Your task to perform on an android device: add a contact in the contacts app Image 0: 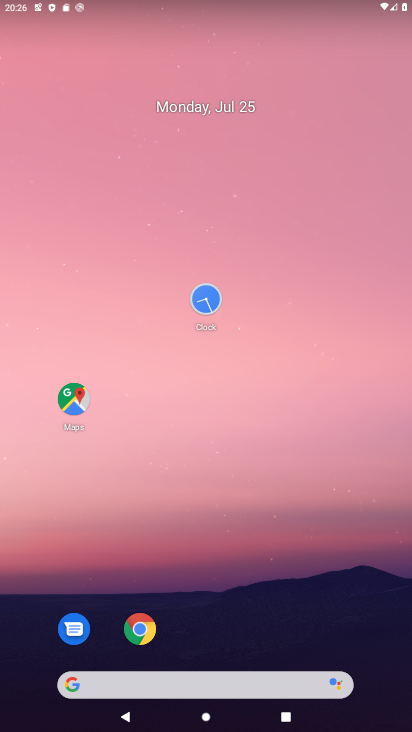
Step 0: drag from (212, 620) to (80, 6)
Your task to perform on an android device: add a contact in the contacts app Image 1: 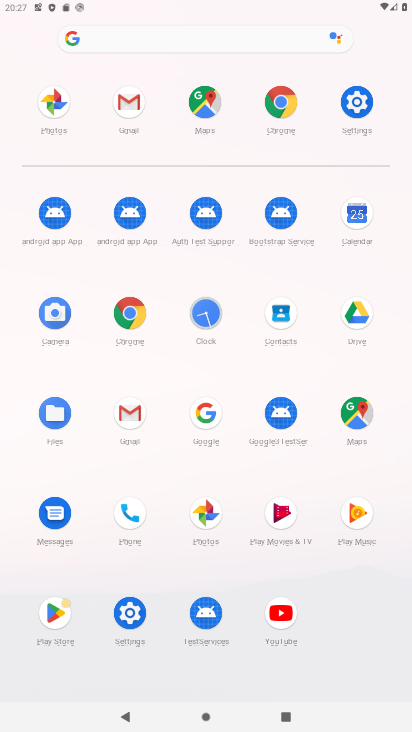
Step 1: click (284, 315)
Your task to perform on an android device: add a contact in the contacts app Image 2: 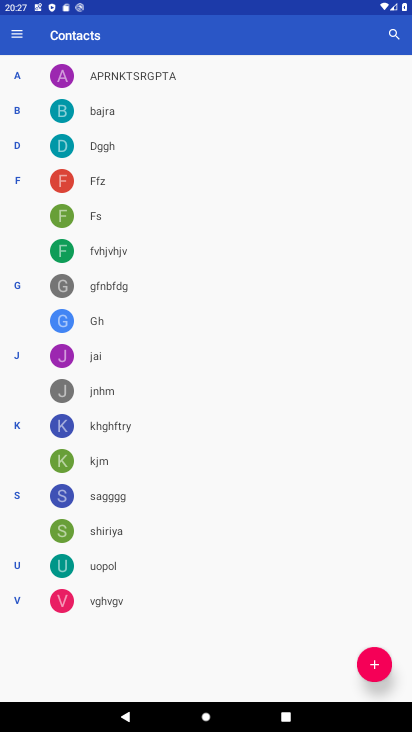
Step 2: click (375, 670)
Your task to perform on an android device: add a contact in the contacts app Image 3: 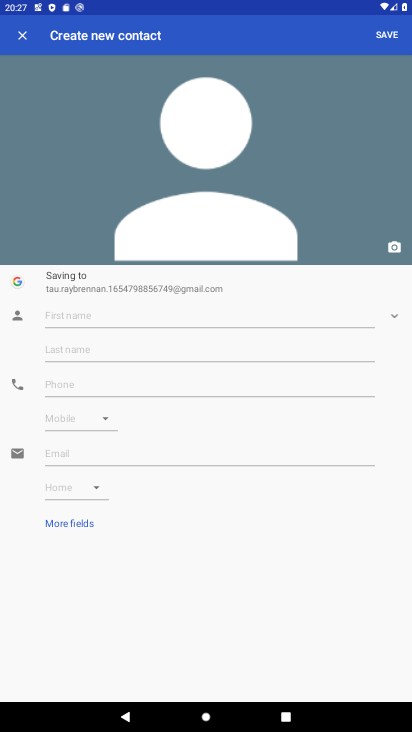
Step 3: click (128, 316)
Your task to perform on an android device: add a contact in the contacts app Image 4: 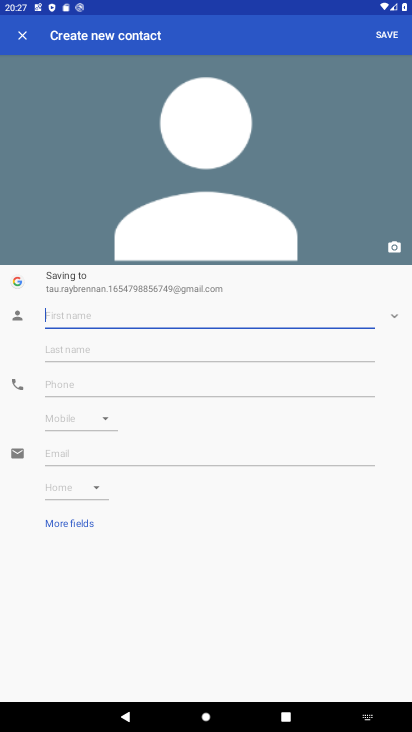
Step 4: type "clinch"
Your task to perform on an android device: add a contact in the contacts app Image 5: 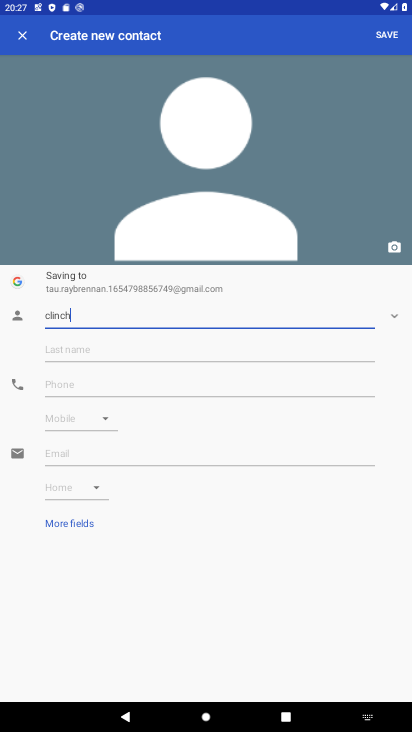
Step 5: click (389, 31)
Your task to perform on an android device: add a contact in the contacts app Image 6: 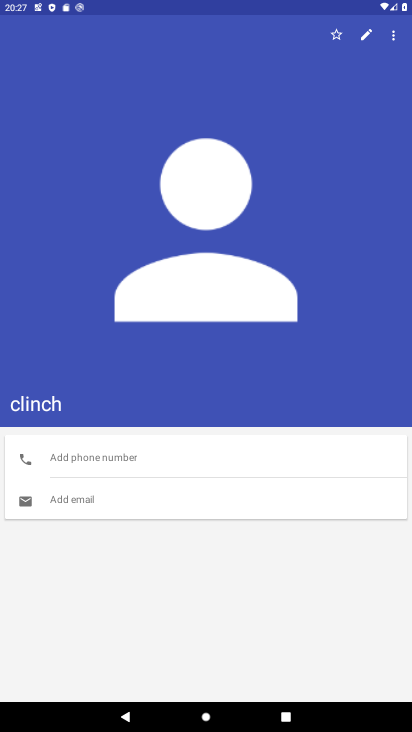
Step 6: task complete